Your task to perform on an android device: remove spam from my inbox in the gmail app Image 0: 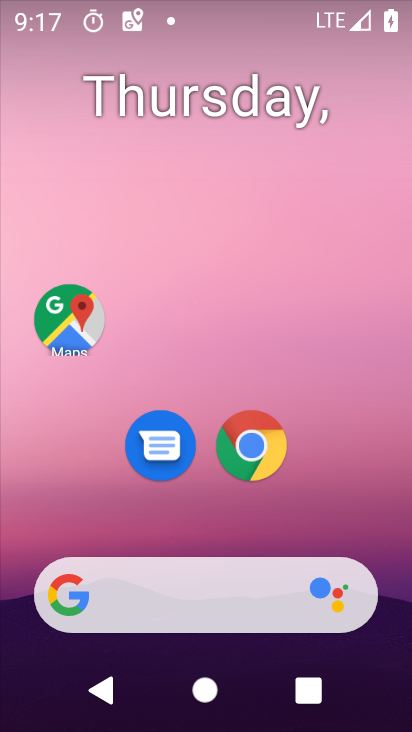
Step 0: drag from (220, 543) to (261, 143)
Your task to perform on an android device: remove spam from my inbox in the gmail app Image 1: 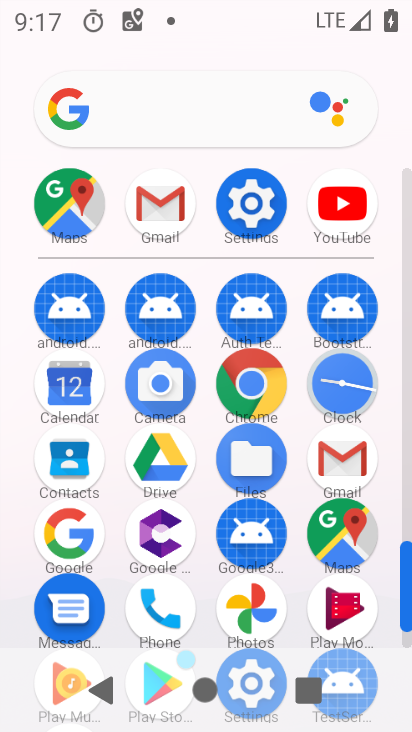
Step 1: click (345, 445)
Your task to perform on an android device: remove spam from my inbox in the gmail app Image 2: 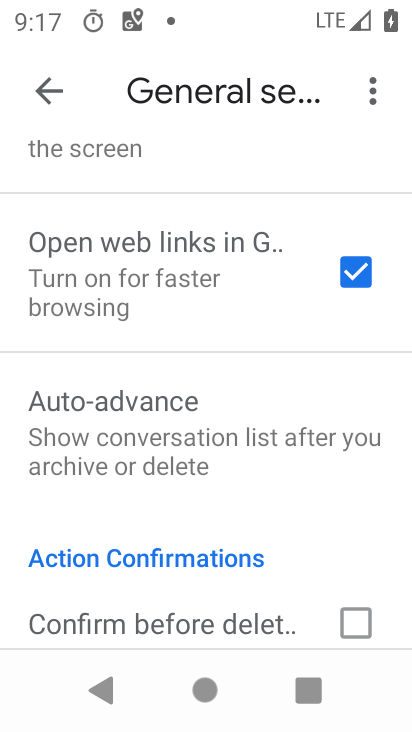
Step 2: drag from (160, 506) to (249, 137)
Your task to perform on an android device: remove spam from my inbox in the gmail app Image 3: 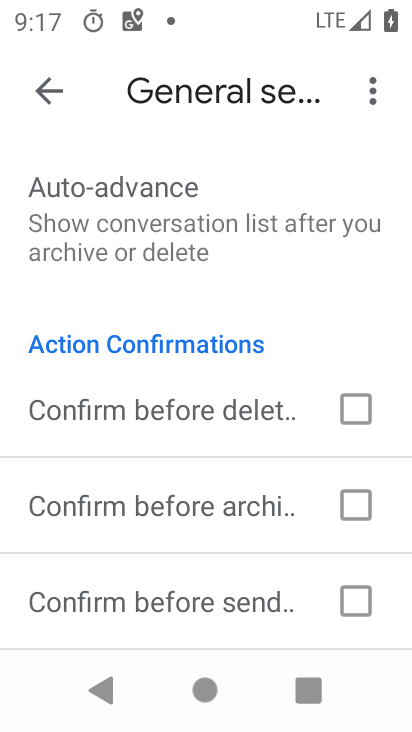
Step 3: drag from (258, 236) to (324, 613)
Your task to perform on an android device: remove spam from my inbox in the gmail app Image 4: 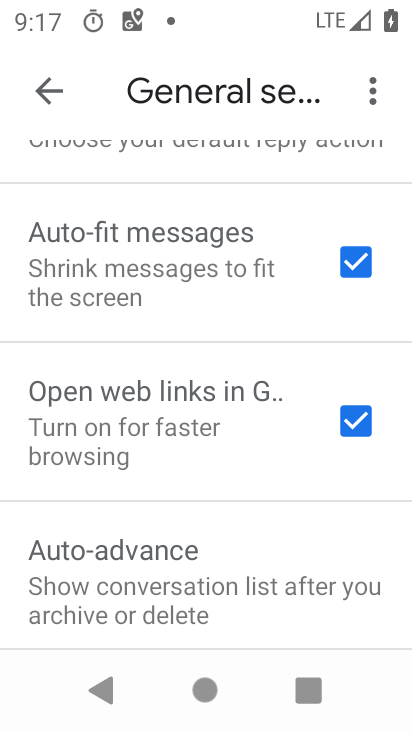
Step 4: click (57, 92)
Your task to perform on an android device: remove spam from my inbox in the gmail app Image 5: 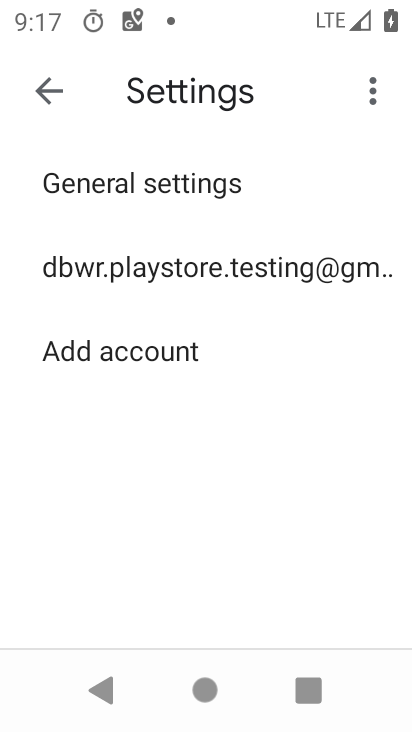
Step 5: click (49, 83)
Your task to perform on an android device: remove spam from my inbox in the gmail app Image 6: 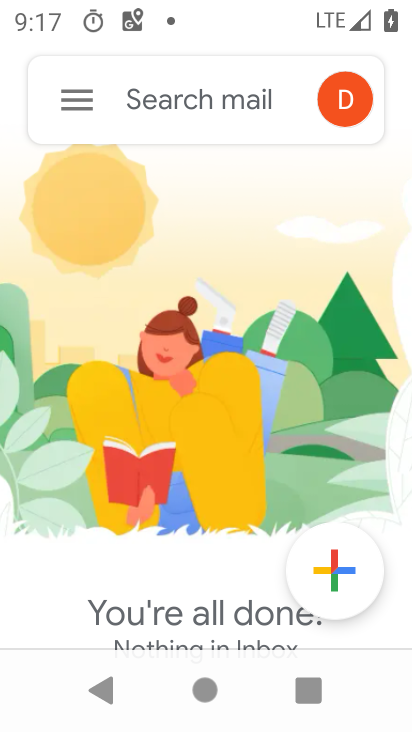
Step 6: click (57, 91)
Your task to perform on an android device: remove spam from my inbox in the gmail app Image 7: 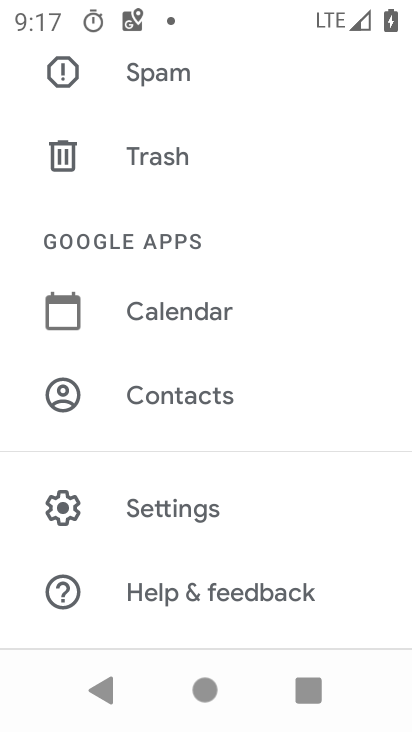
Step 7: click (189, 71)
Your task to perform on an android device: remove spam from my inbox in the gmail app Image 8: 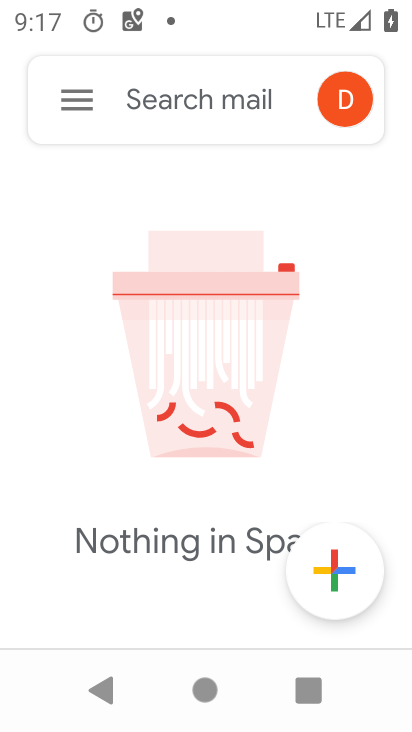
Step 8: drag from (193, 401) to (256, 94)
Your task to perform on an android device: remove spam from my inbox in the gmail app Image 9: 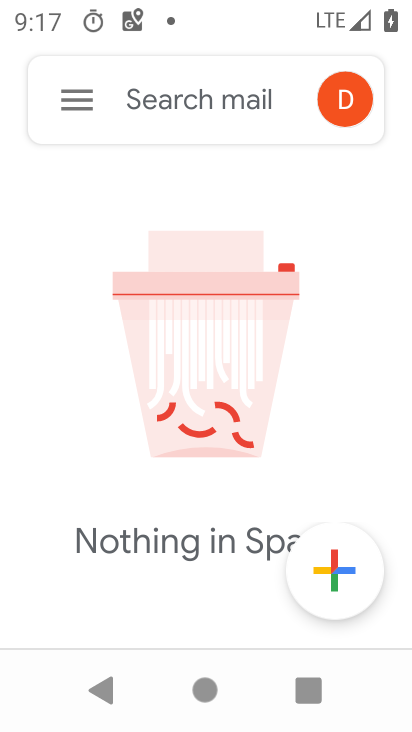
Step 9: click (223, 276)
Your task to perform on an android device: remove spam from my inbox in the gmail app Image 10: 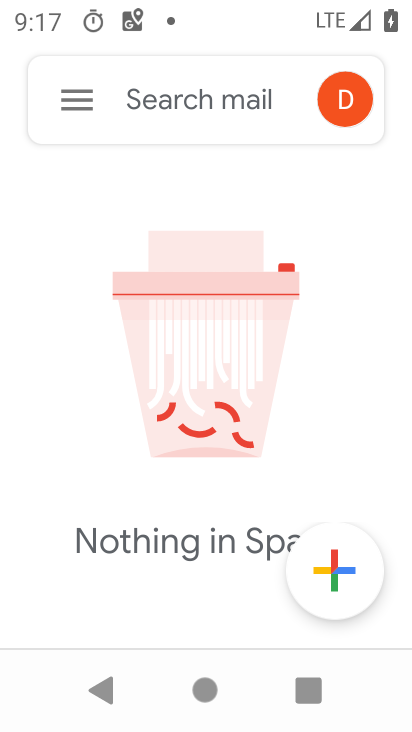
Step 10: click (196, 225)
Your task to perform on an android device: remove spam from my inbox in the gmail app Image 11: 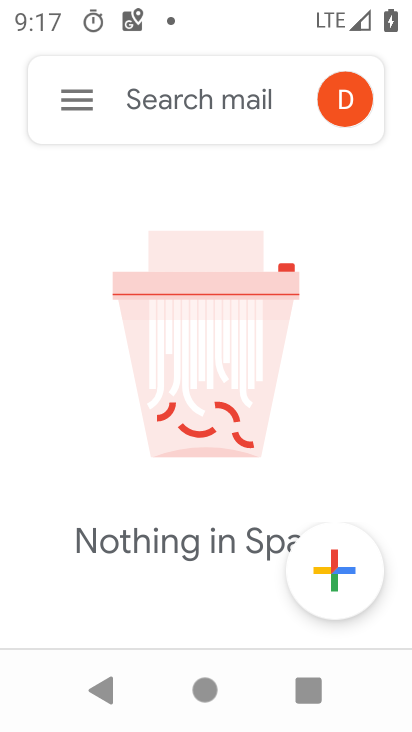
Step 11: click (195, 223)
Your task to perform on an android device: remove spam from my inbox in the gmail app Image 12: 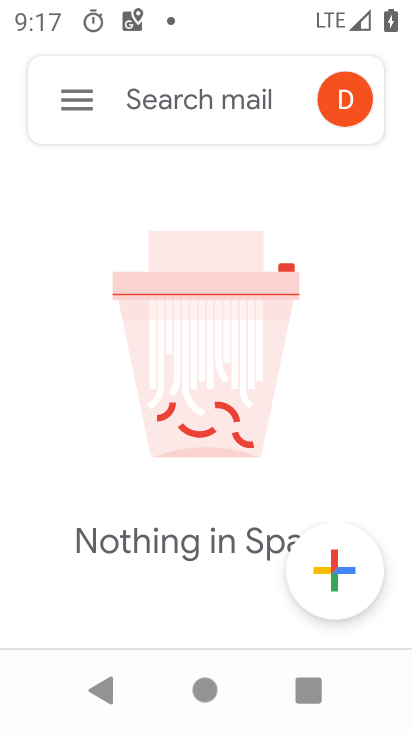
Step 12: click (204, 230)
Your task to perform on an android device: remove spam from my inbox in the gmail app Image 13: 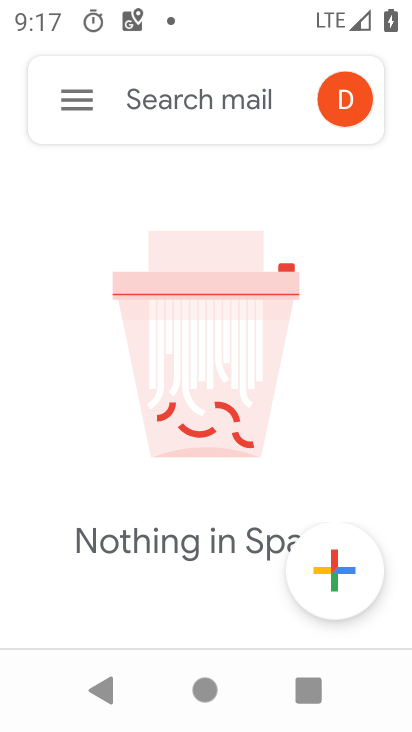
Step 13: click (204, 230)
Your task to perform on an android device: remove spam from my inbox in the gmail app Image 14: 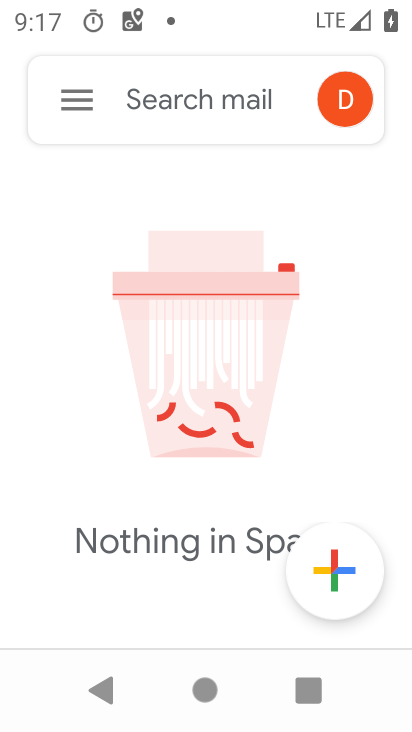
Step 14: click (205, 233)
Your task to perform on an android device: remove spam from my inbox in the gmail app Image 15: 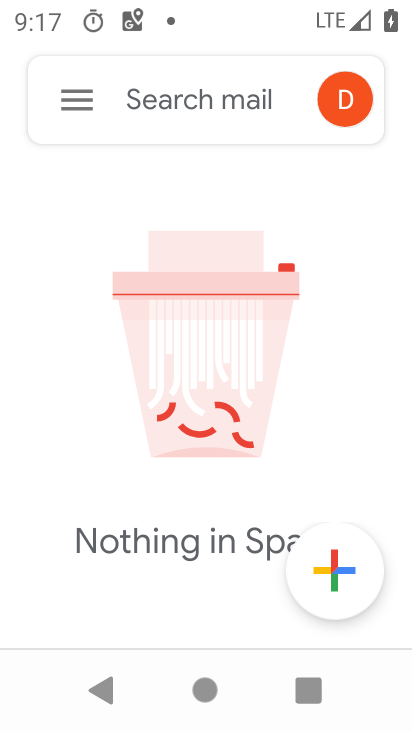
Step 15: click (205, 233)
Your task to perform on an android device: remove spam from my inbox in the gmail app Image 16: 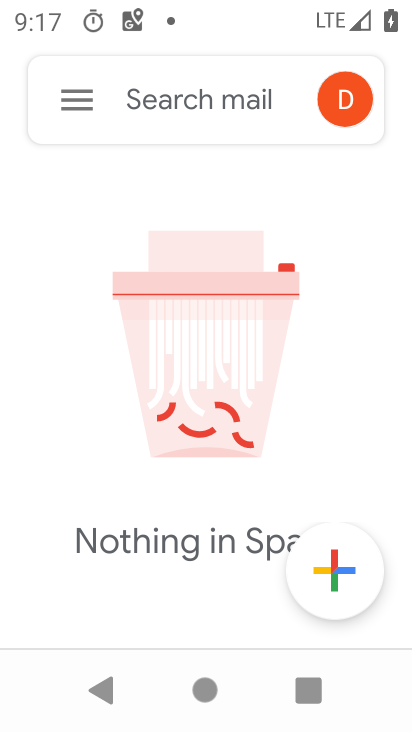
Step 16: click (205, 233)
Your task to perform on an android device: remove spam from my inbox in the gmail app Image 17: 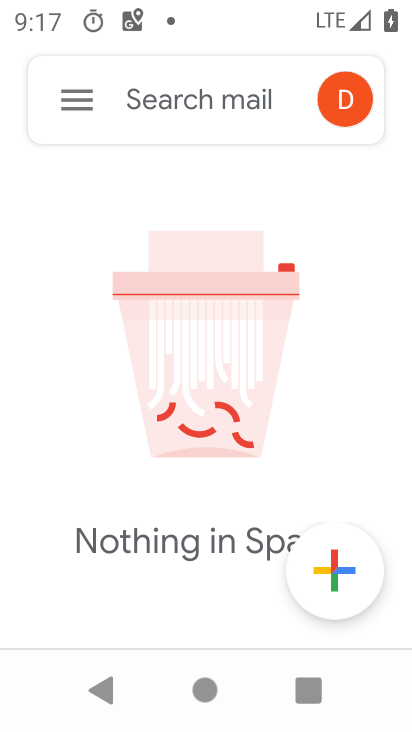
Step 17: click (205, 232)
Your task to perform on an android device: remove spam from my inbox in the gmail app Image 18: 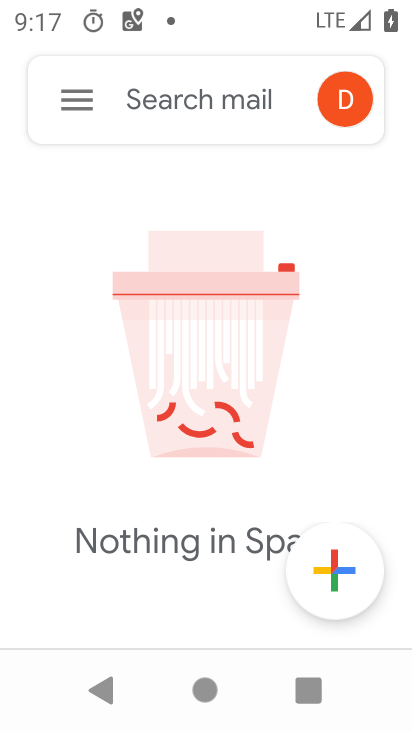
Step 18: click (205, 233)
Your task to perform on an android device: remove spam from my inbox in the gmail app Image 19: 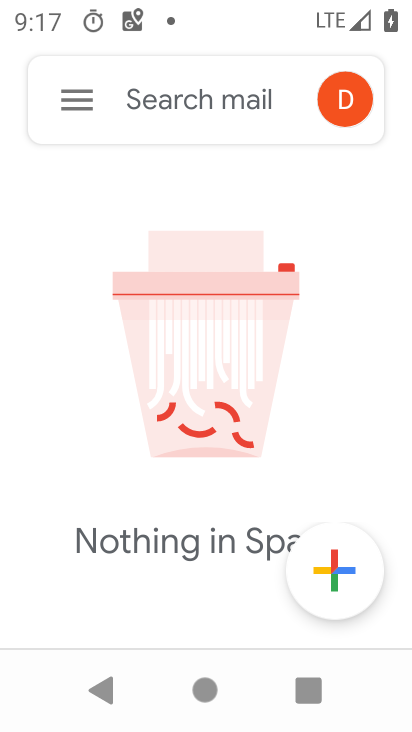
Step 19: task complete